Your task to perform on an android device: toggle show notifications on the lock screen Image 0: 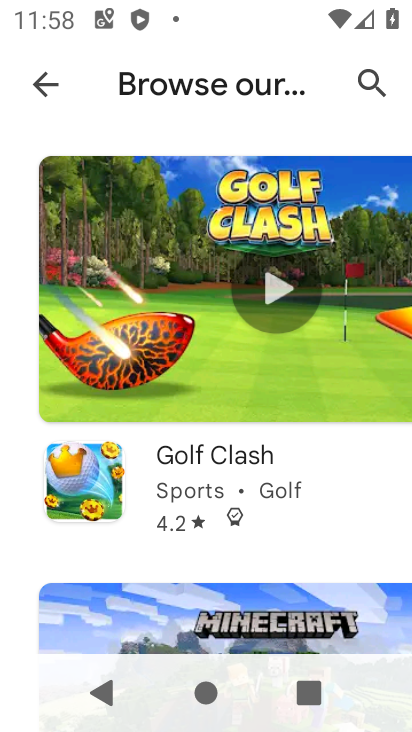
Step 0: press home button
Your task to perform on an android device: toggle show notifications on the lock screen Image 1: 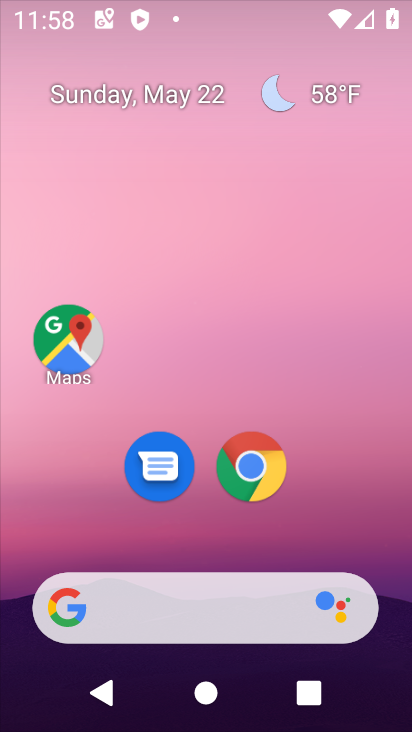
Step 1: drag from (198, 525) to (237, 65)
Your task to perform on an android device: toggle show notifications on the lock screen Image 2: 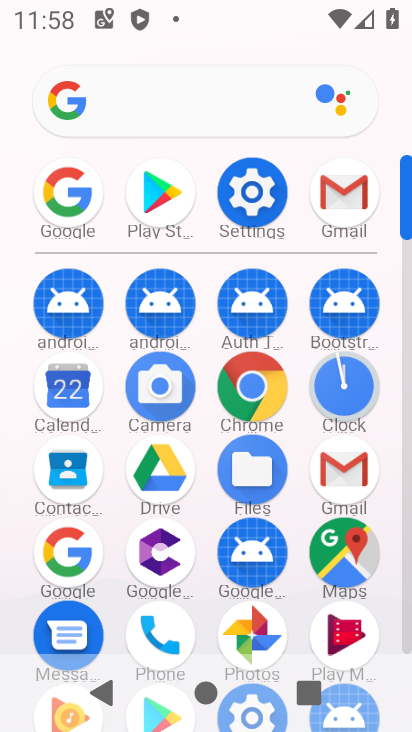
Step 2: click (245, 197)
Your task to perform on an android device: toggle show notifications on the lock screen Image 3: 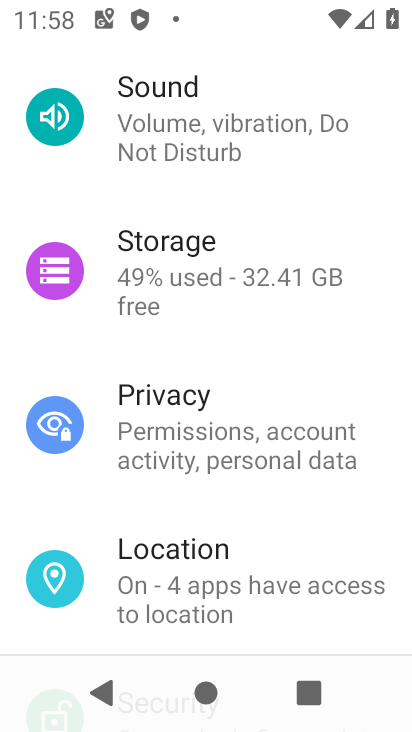
Step 3: drag from (228, 184) to (223, 588)
Your task to perform on an android device: toggle show notifications on the lock screen Image 4: 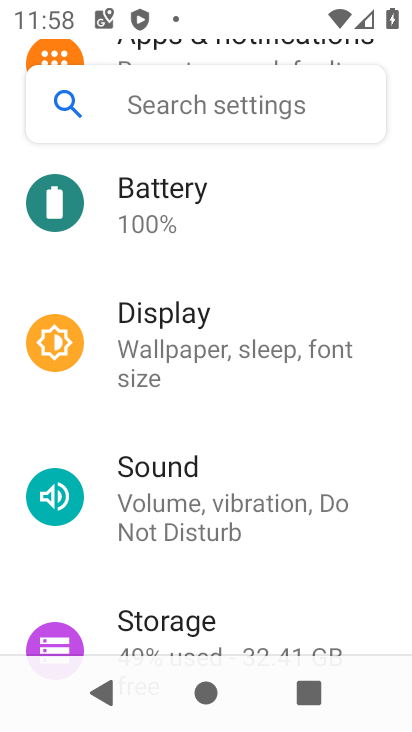
Step 4: drag from (237, 196) to (233, 579)
Your task to perform on an android device: toggle show notifications on the lock screen Image 5: 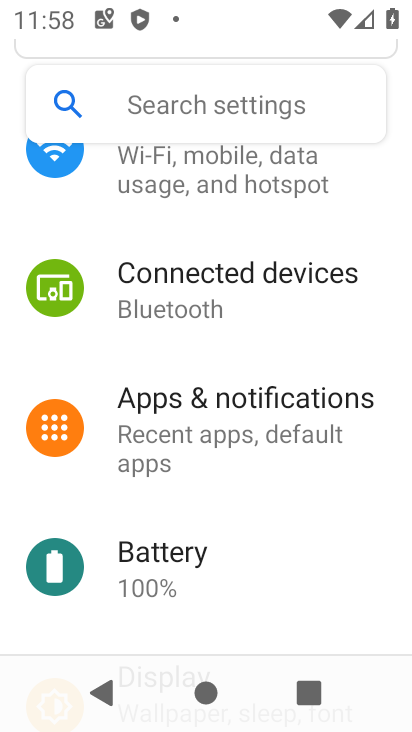
Step 5: click (218, 416)
Your task to perform on an android device: toggle show notifications on the lock screen Image 6: 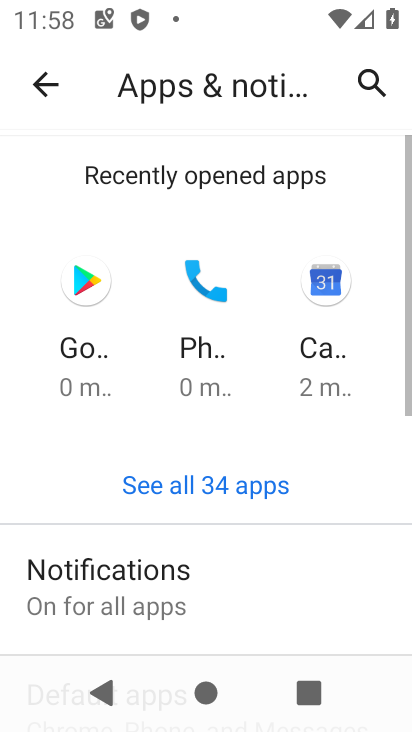
Step 6: click (147, 587)
Your task to perform on an android device: toggle show notifications on the lock screen Image 7: 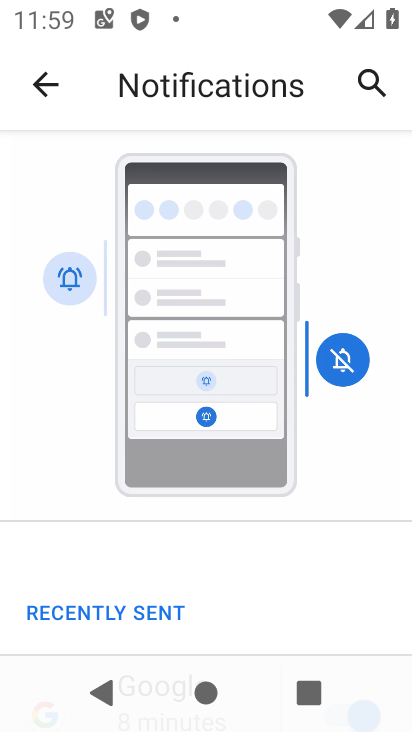
Step 7: drag from (265, 69) to (271, 27)
Your task to perform on an android device: toggle show notifications on the lock screen Image 8: 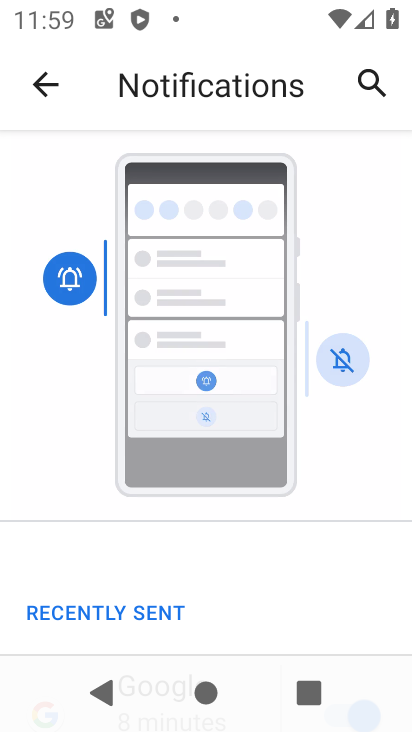
Step 8: drag from (222, 580) to (263, 107)
Your task to perform on an android device: toggle show notifications on the lock screen Image 9: 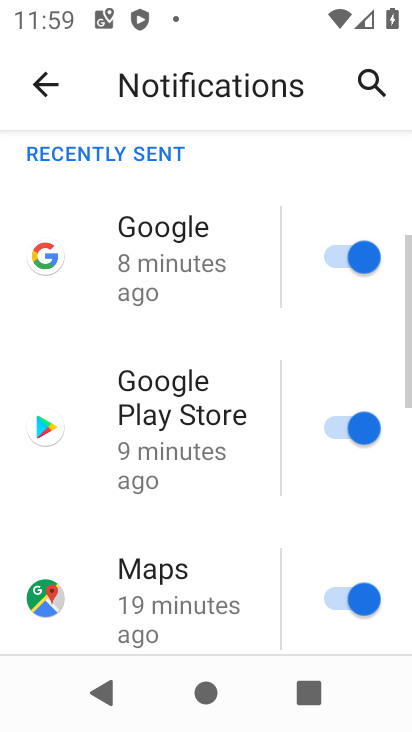
Step 9: drag from (241, 571) to (243, 110)
Your task to perform on an android device: toggle show notifications on the lock screen Image 10: 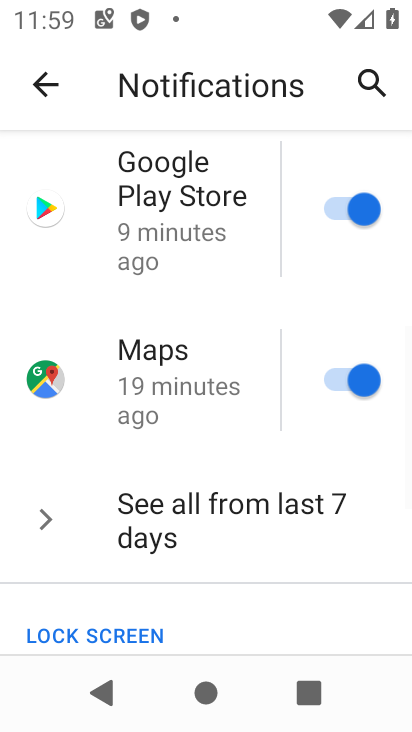
Step 10: drag from (212, 580) to (224, 231)
Your task to perform on an android device: toggle show notifications on the lock screen Image 11: 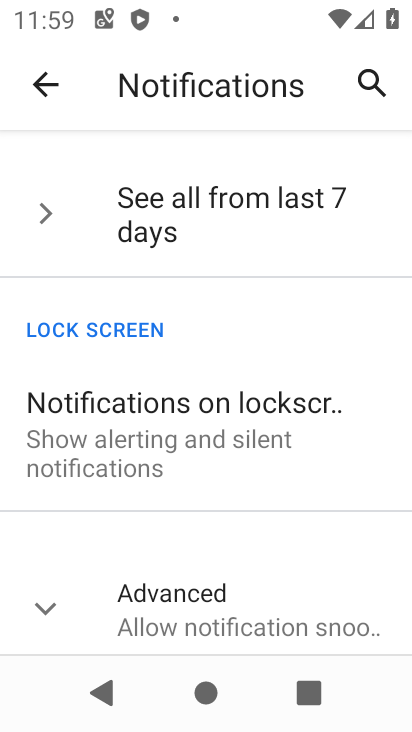
Step 11: click (232, 422)
Your task to perform on an android device: toggle show notifications on the lock screen Image 12: 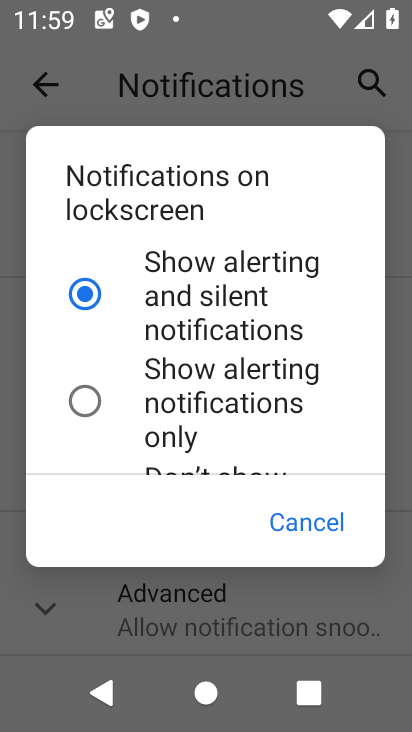
Step 12: drag from (96, 412) to (87, 216)
Your task to perform on an android device: toggle show notifications on the lock screen Image 13: 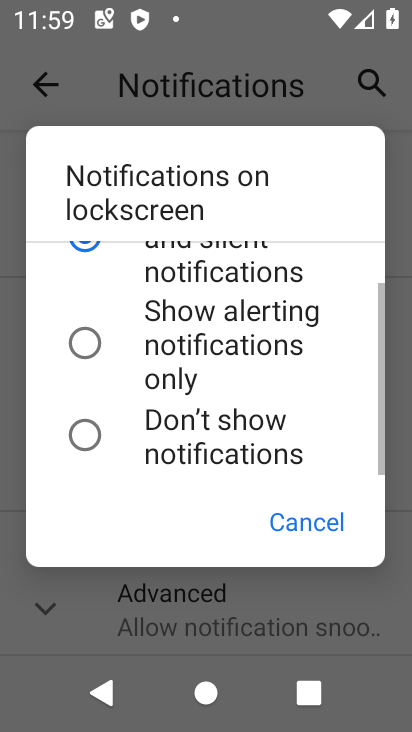
Step 13: click (83, 438)
Your task to perform on an android device: toggle show notifications on the lock screen Image 14: 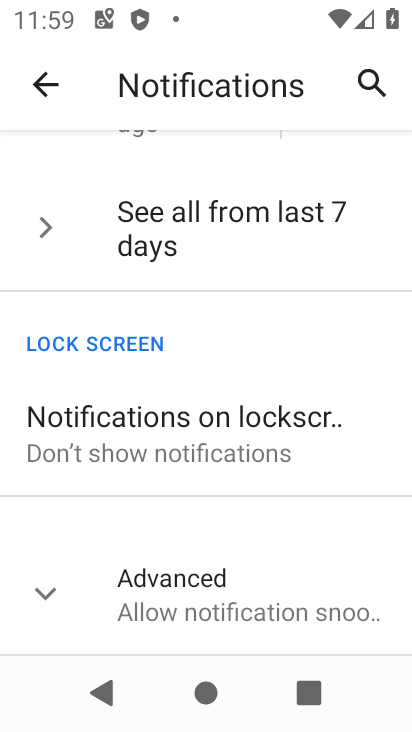
Step 14: task complete